Your task to perform on an android device: check google app version Image 0: 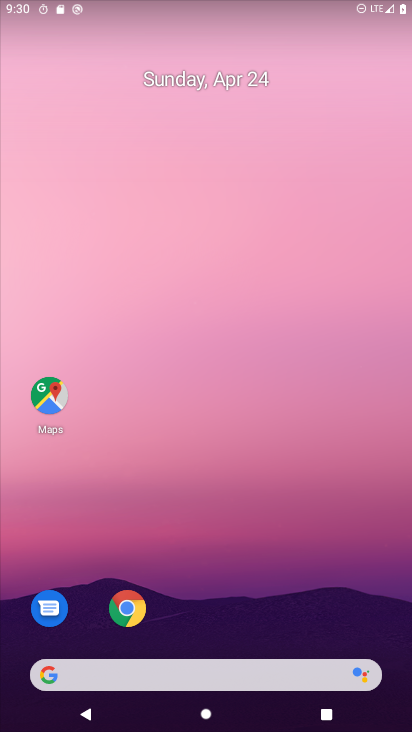
Step 0: drag from (298, 564) to (264, 31)
Your task to perform on an android device: check google app version Image 1: 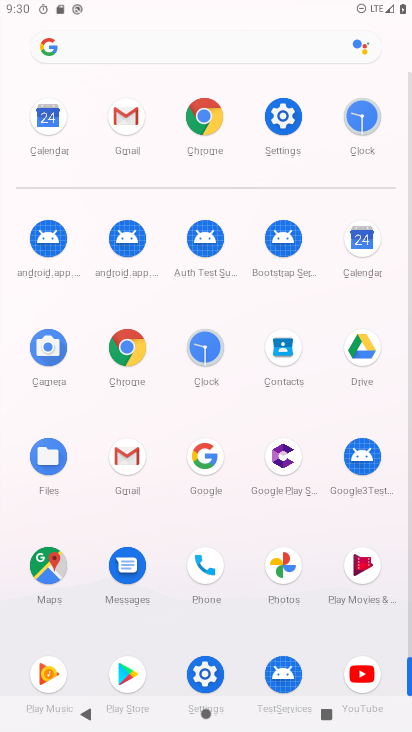
Step 1: click (204, 449)
Your task to perform on an android device: check google app version Image 2: 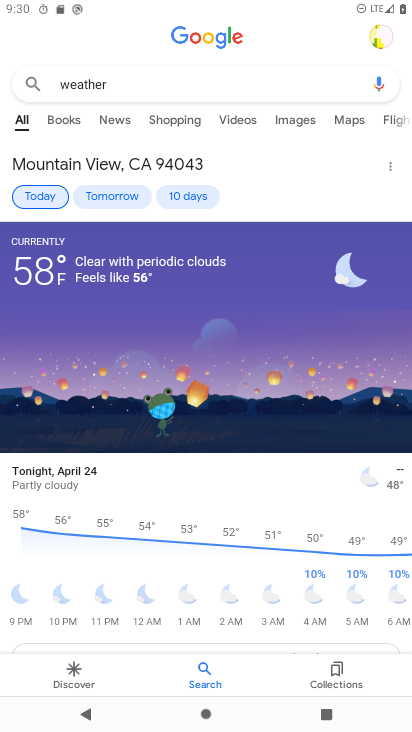
Step 2: click (387, 31)
Your task to perform on an android device: check google app version Image 3: 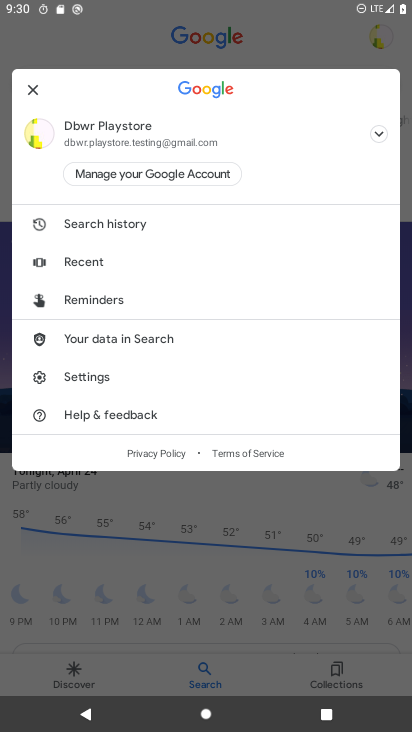
Step 3: click (125, 372)
Your task to perform on an android device: check google app version Image 4: 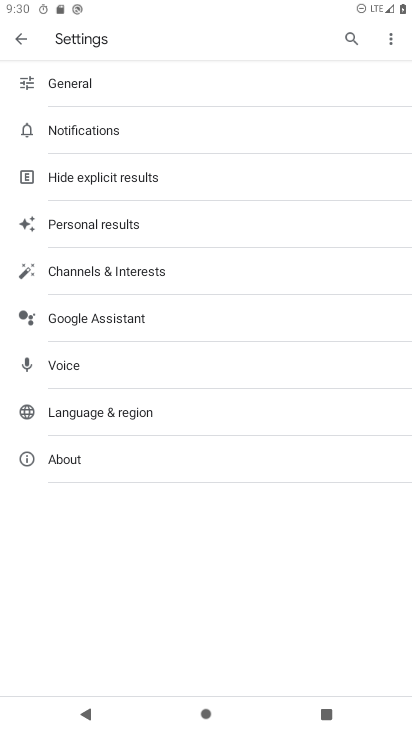
Step 4: click (89, 447)
Your task to perform on an android device: check google app version Image 5: 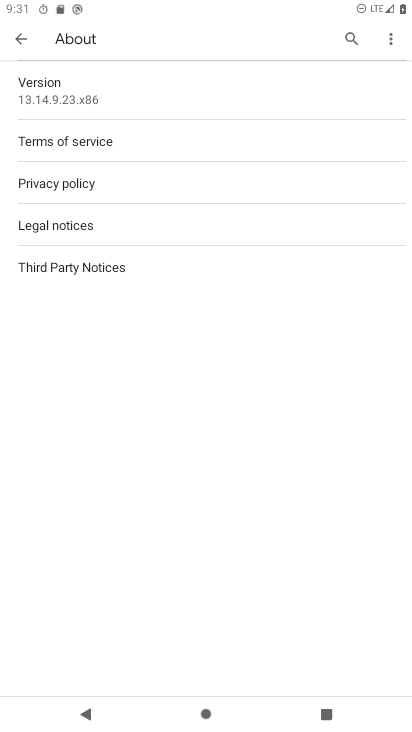
Step 5: task complete